Your task to perform on an android device: Go to eBay Image 0: 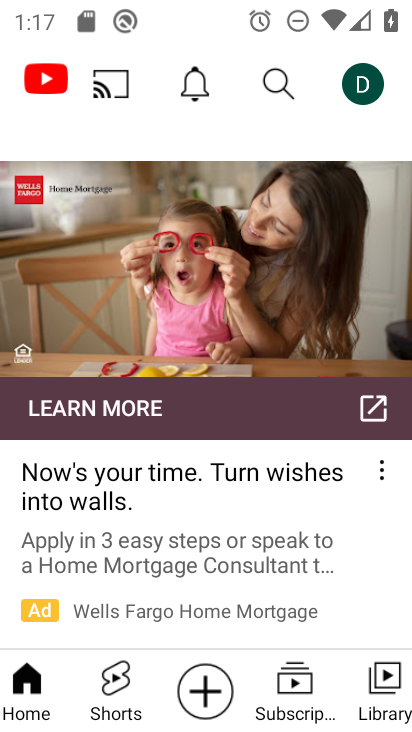
Step 0: press home button
Your task to perform on an android device: Go to eBay Image 1: 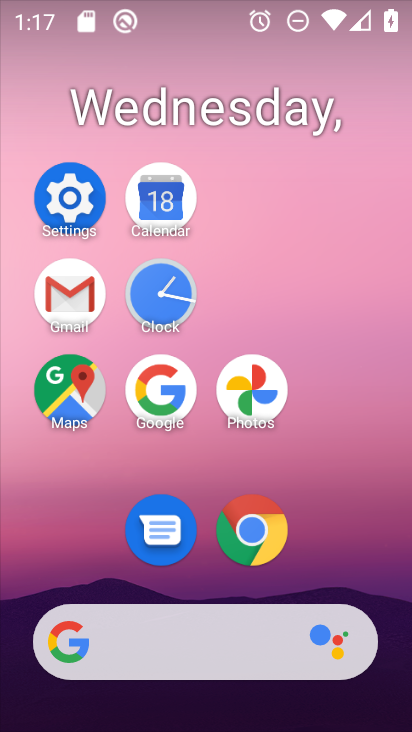
Step 1: click (252, 525)
Your task to perform on an android device: Go to eBay Image 2: 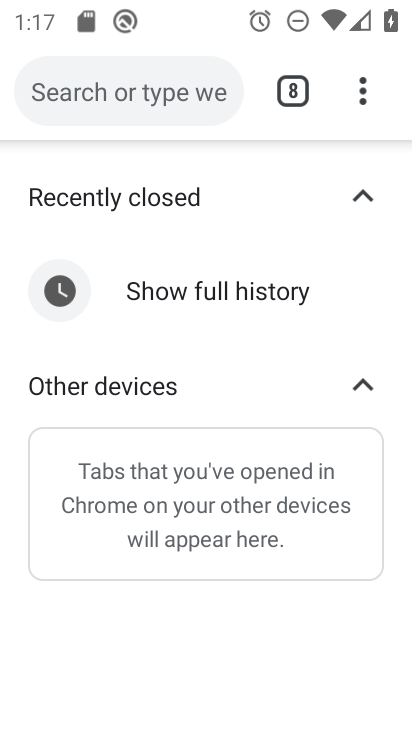
Step 2: click (288, 86)
Your task to perform on an android device: Go to eBay Image 3: 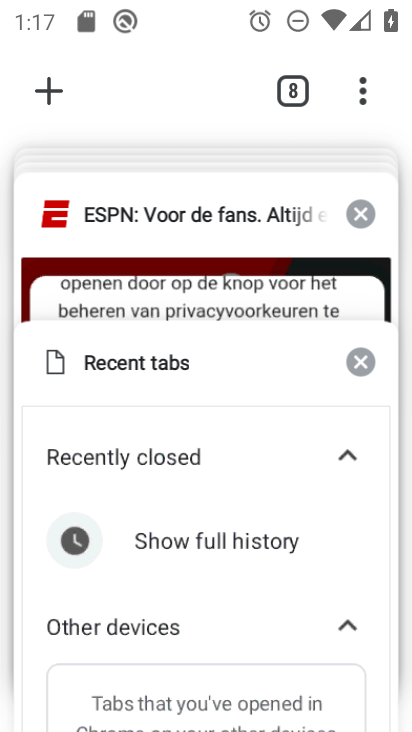
Step 3: drag from (198, 248) to (226, 478)
Your task to perform on an android device: Go to eBay Image 4: 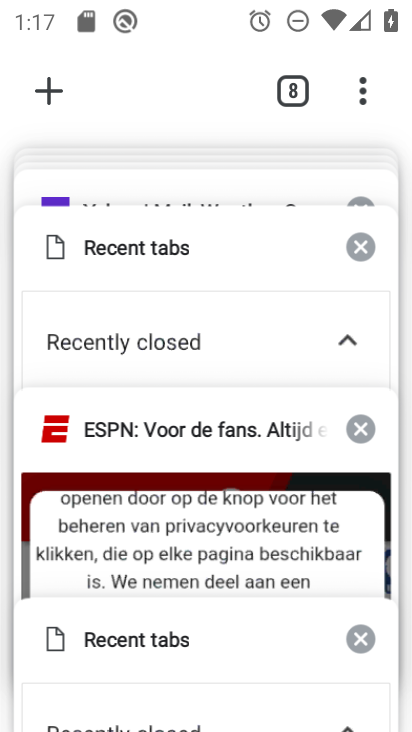
Step 4: drag from (209, 236) to (241, 528)
Your task to perform on an android device: Go to eBay Image 5: 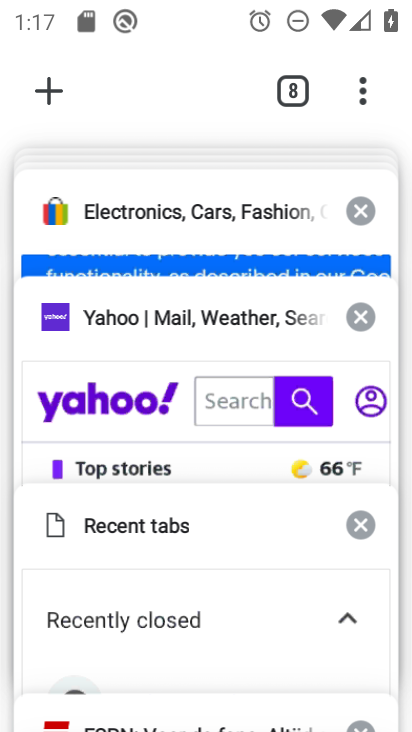
Step 5: click (161, 204)
Your task to perform on an android device: Go to eBay Image 6: 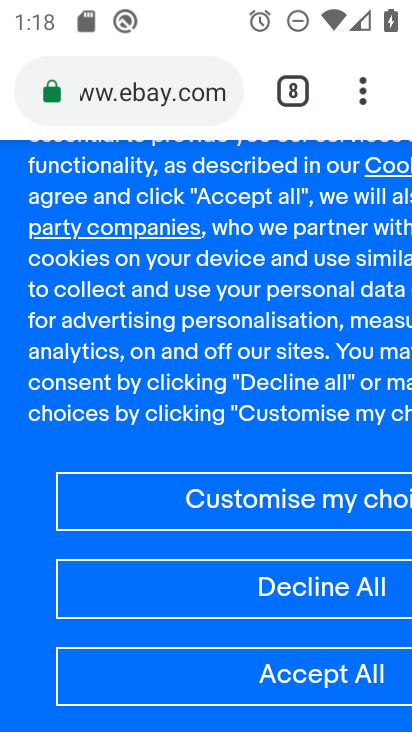
Step 6: task complete